Your task to perform on an android device: Open eBay Image 0: 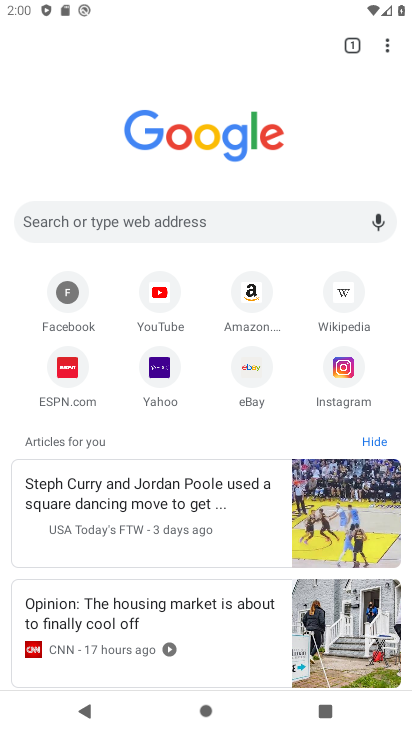
Step 0: click (258, 379)
Your task to perform on an android device: Open eBay Image 1: 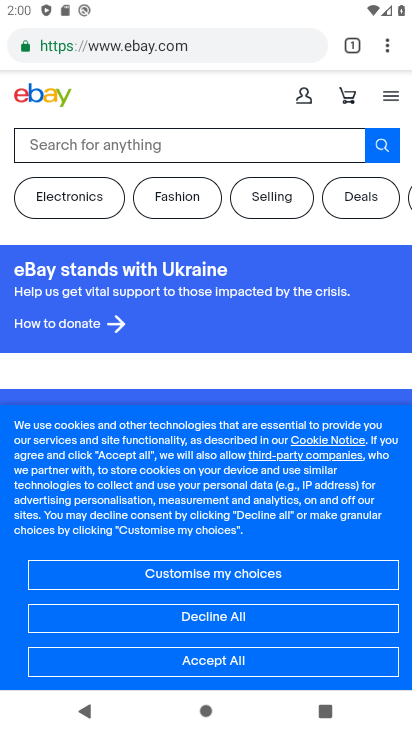
Step 1: task complete